Your task to perform on an android device: Open Reddit.com Image 0: 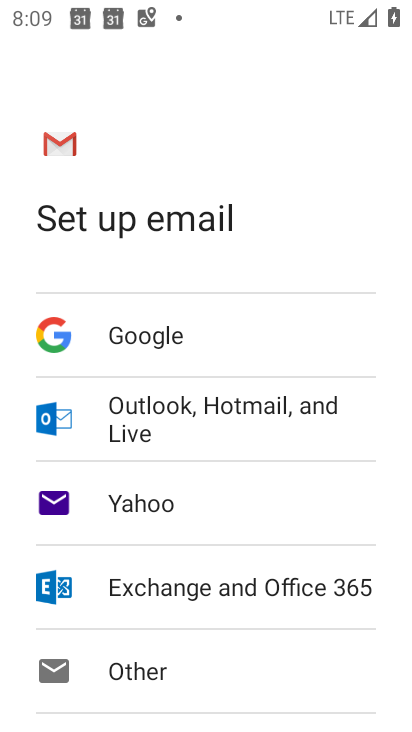
Step 0: press home button
Your task to perform on an android device: Open Reddit.com Image 1: 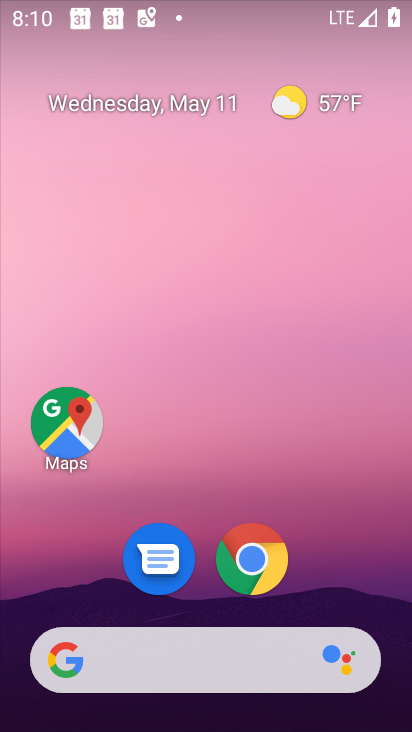
Step 1: click (259, 570)
Your task to perform on an android device: Open Reddit.com Image 2: 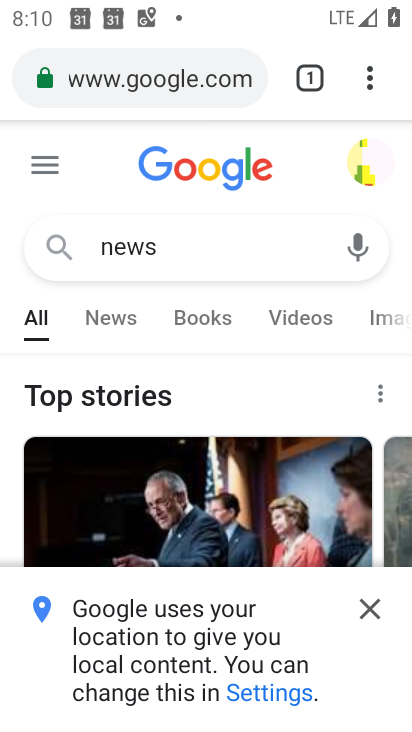
Step 2: click (154, 91)
Your task to perform on an android device: Open Reddit.com Image 3: 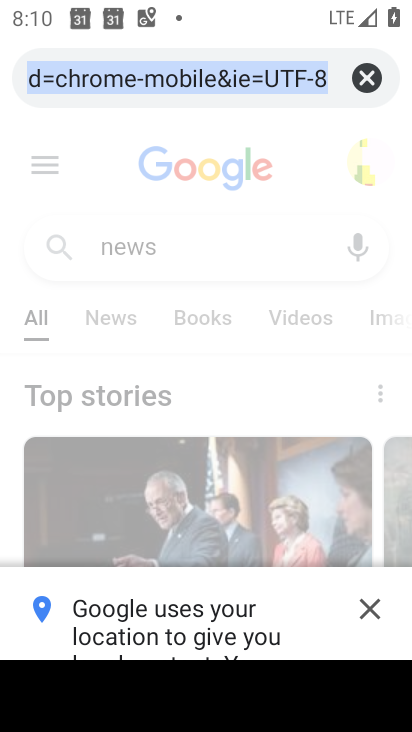
Step 3: click (375, 78)
Your task to perform on an android device: Open Reddit.com Image 4: 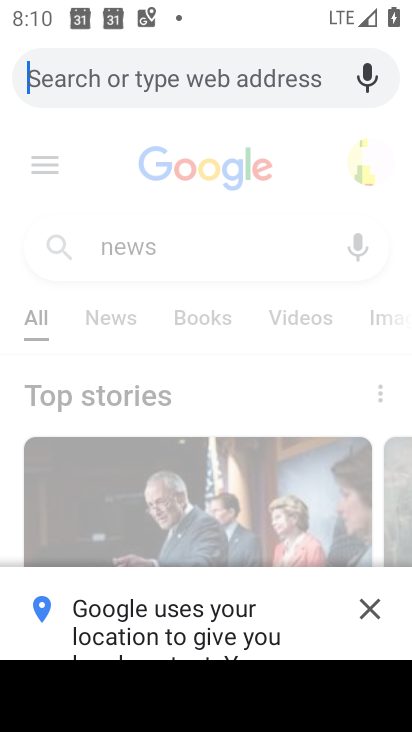
Step 4: type "Reddit.com"
Your task to perform on an android device: Open Reddit.com Image 5: 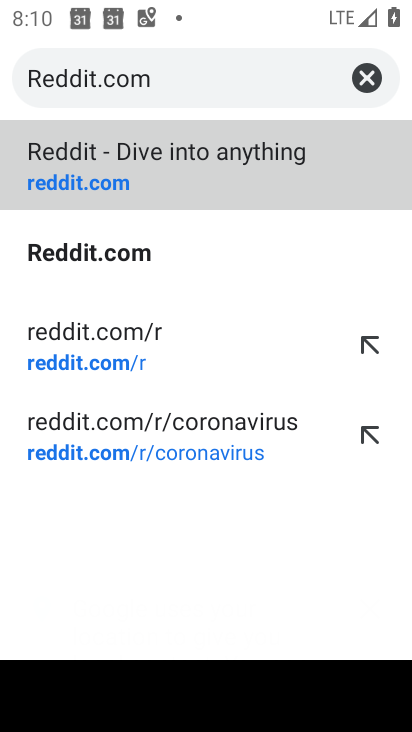
Step 5: click (152, 141)
Your task to perform on an android device: Open Reddit.com Image 6: 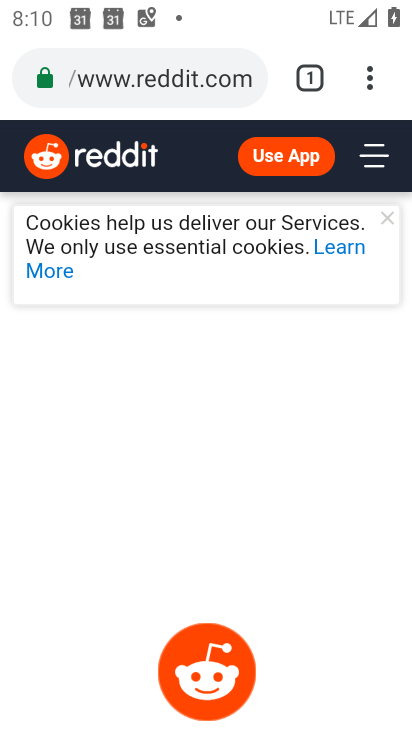
Step 6: task complete